Your task to perform on an android device: refresh tabs in the chrome app Image 0: 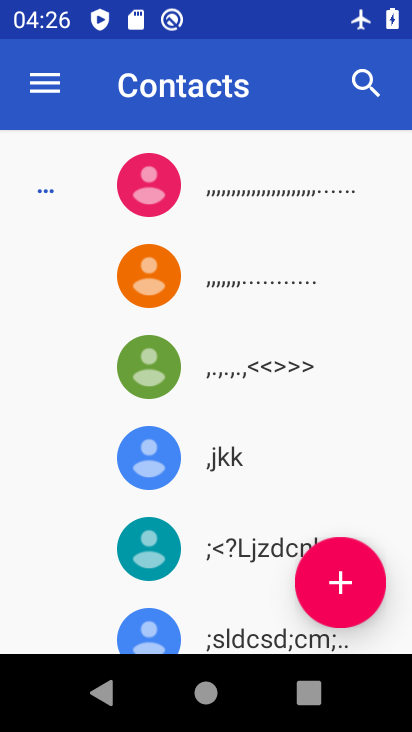
Step 0: press home button
Your task to perform on an android device: refresh tabs in the chrome app Image 1: 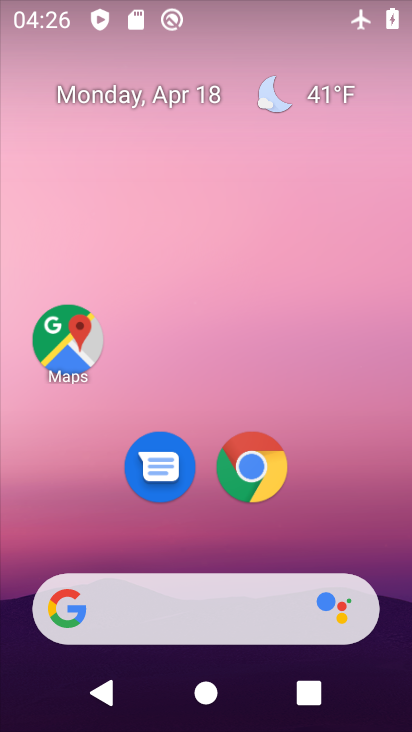
Step 1: click (243, 469)
Your task to perform on an android device: refresh tabs in the chrome app Image 2: 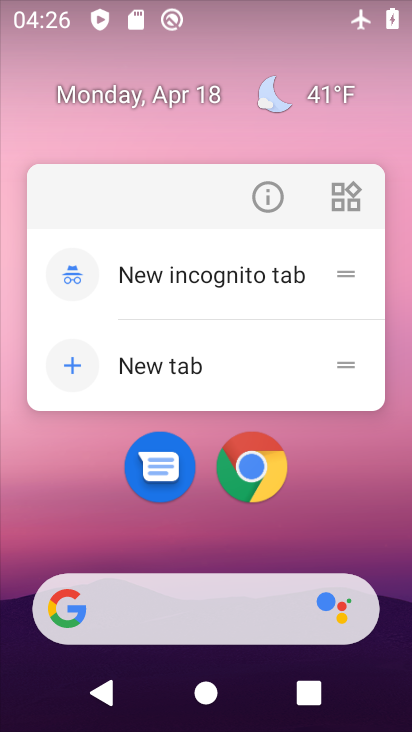
Step 2: click (240, 452)
Your task to perform on an android device: refresh tabs in the chrome app Image 3: 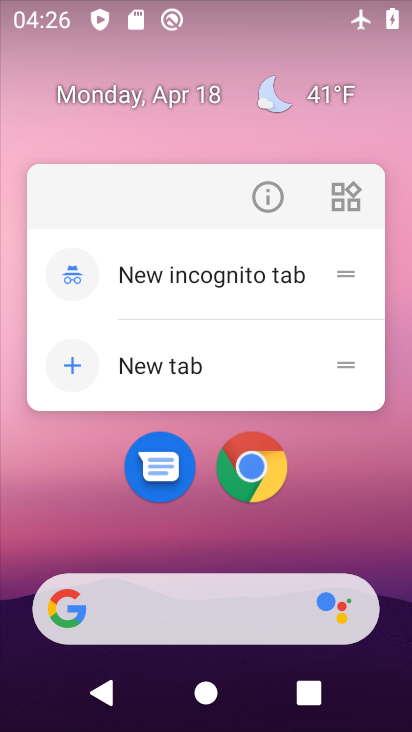
Step 3: click (267, 443)
Your task to perform on an android device: refresh tabs in the chrome app Image 4: 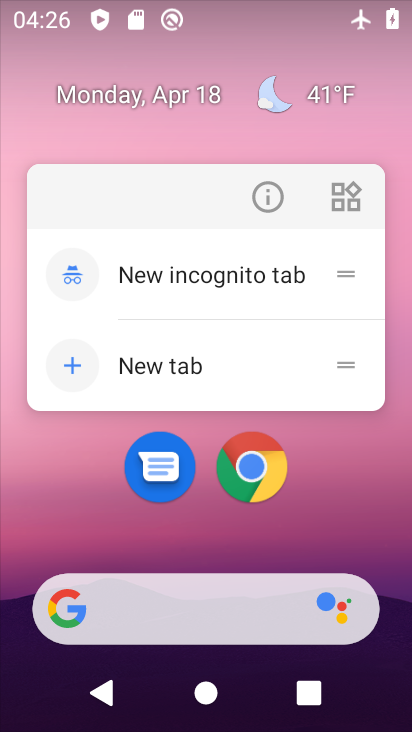
Step 4: click (266, 445)
Your task to perform on an android device: refresh tabs in the chrome app Image 5: 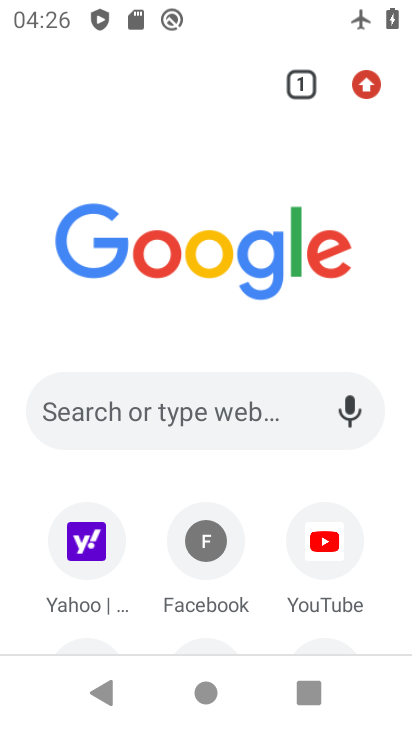
Step 5: click (369, 78)
Your task to perform on an android device: refresh tabs in the chrome app Image 6: 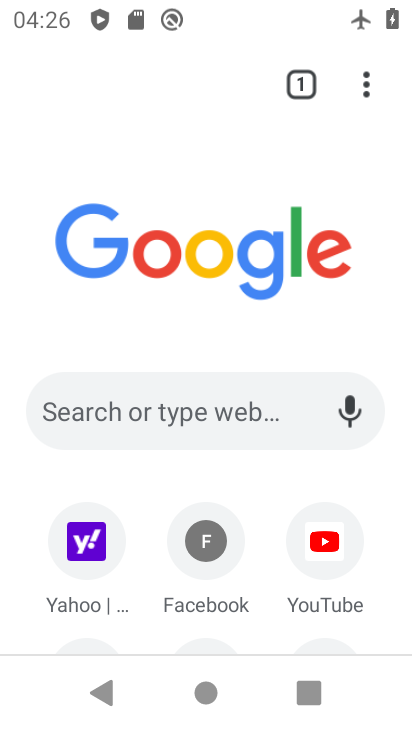
Step 6: click (369, 78)
Your task to perform on an android device: refresh tabs in the chrome app Image 7: 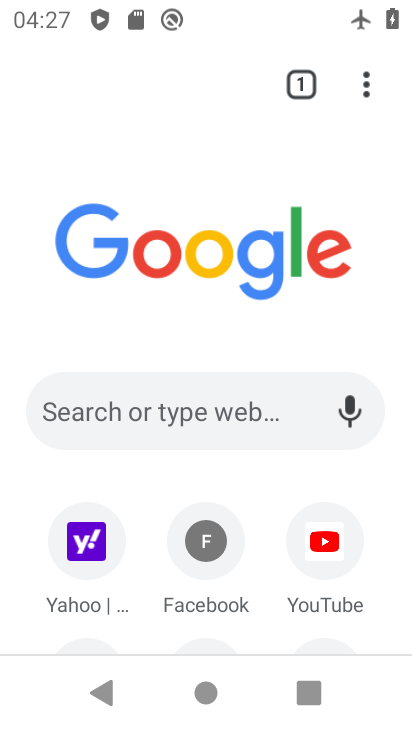
Step 7: click (361, 94)
Your task to perform on an android device: refresh tabs in the chrome app Image 8: 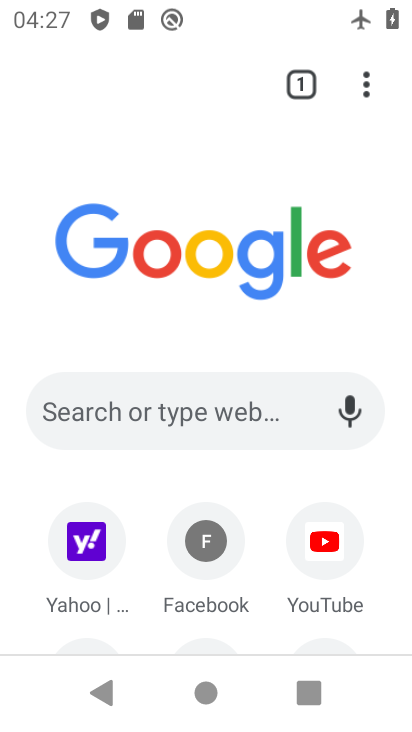
Step 8: click (361, 94)
Your task to perform on an android device: refresh tabs in the chrome app Image 9: 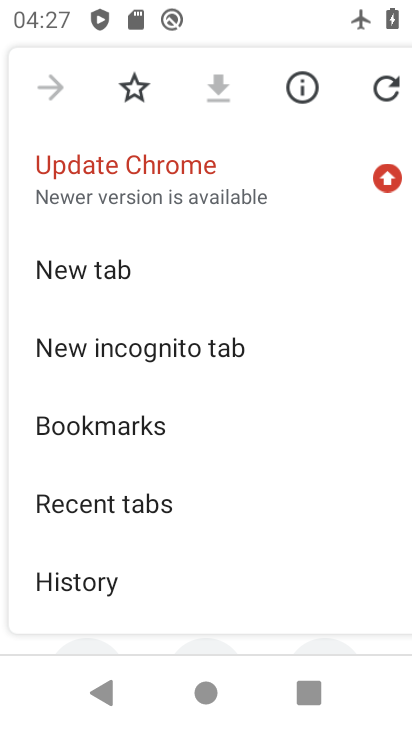
Step 9: click (369, 90)
Your task to perform on an android device: refresh tabs in the chrome app Image 10: 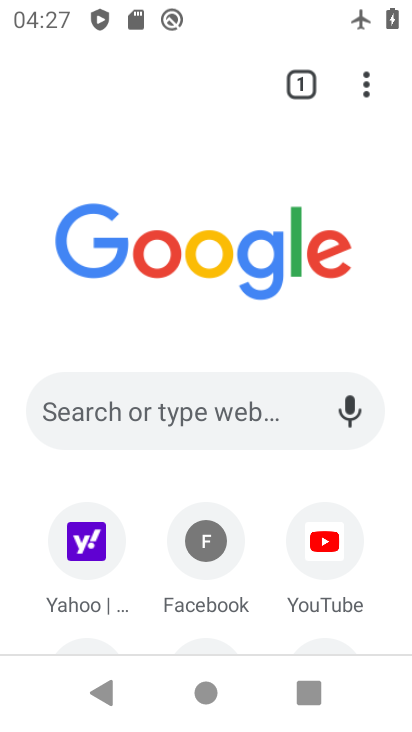
Step 10: click (383, 86)
Your task to perform on an android device: refresh tabs in the chrome app Image 11: 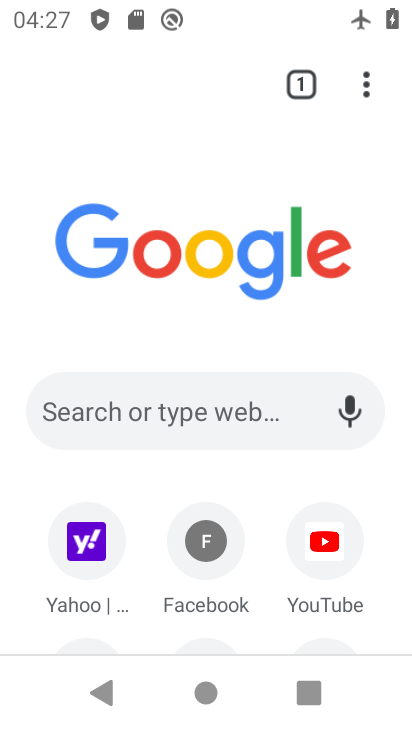
Step 11: task complete